Your task to perform on an android device: Go to Google maps Image 0: 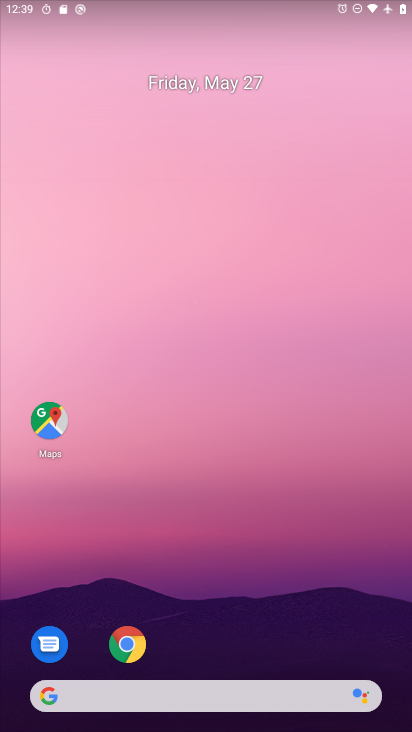
Step 0: click (41, 418)
Your task to perform on an android device: Go to Google maps Image 1: 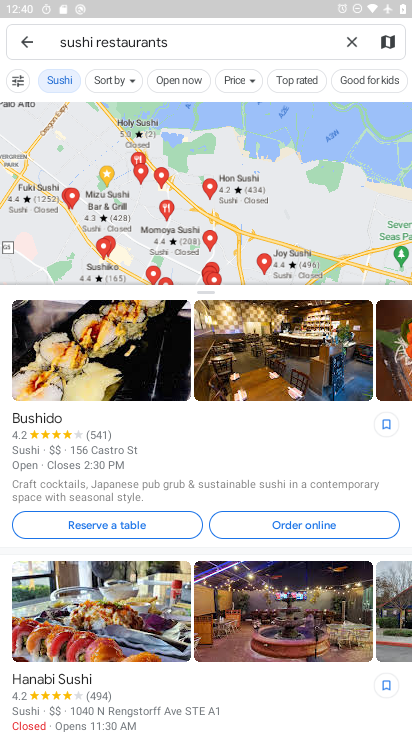
Step 1: task complete